Your task to perform on an android device: Open Google Chrome and click the shortcut for Amazon.com Image 0: 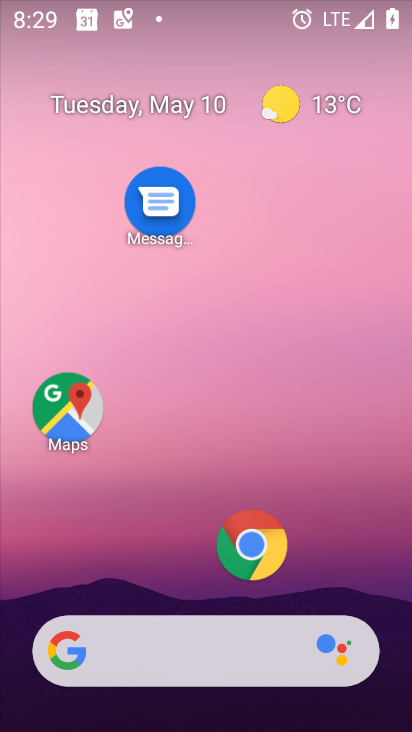
Step 0: press home button
Your task to perform on an android device: Open Google Chrome and click the shortcut for Amazon.com Image 1: 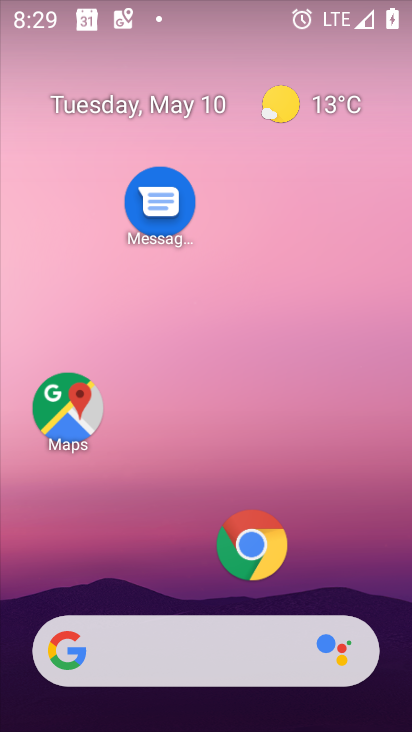
Step 1: click (250, 535)
Your task to perform on an android device: Open Google Chrome and click the shortcut for Amazon.com Image 2: 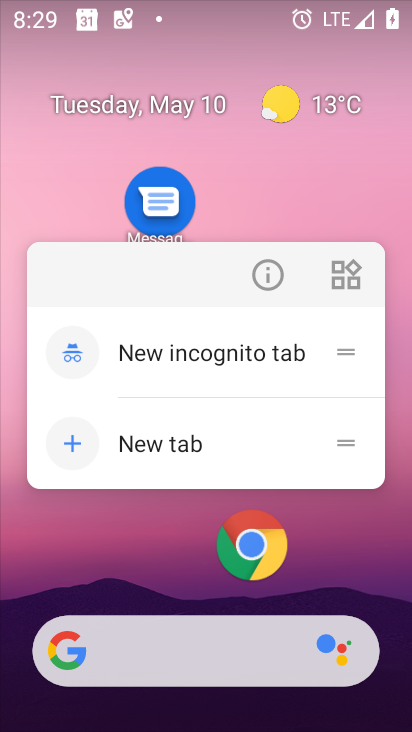
Step 2: click (250, 536)
Your task to perform on an android device: Open Google Chrome and click the shortcut for Amazon.com Image 3: 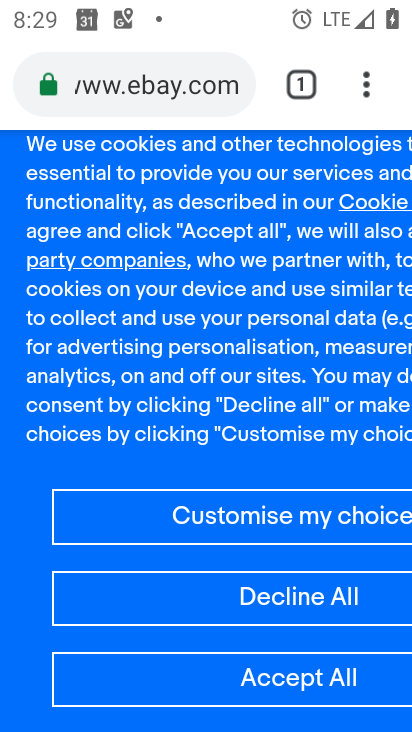
Step 3: click (294, 86)
Your task to perform on an android device: Open Google Chrome and click the shortcut for Amazon.com Image 4: 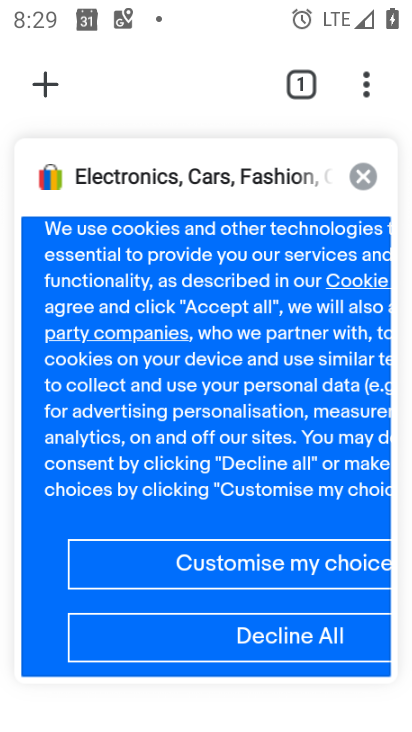
Step 4: click (361, 175)
Your task to perform on an android device: Open Google Chrome and click the shortcut for Amazon.com Image 5: 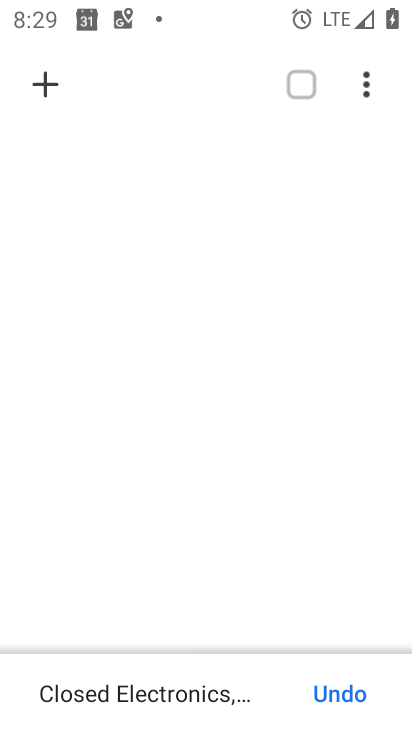
Step 5: click (49, 90)
Your task to perform on an android device: Open Google Chrome and click the shortcut for Amazon.com Image 6: 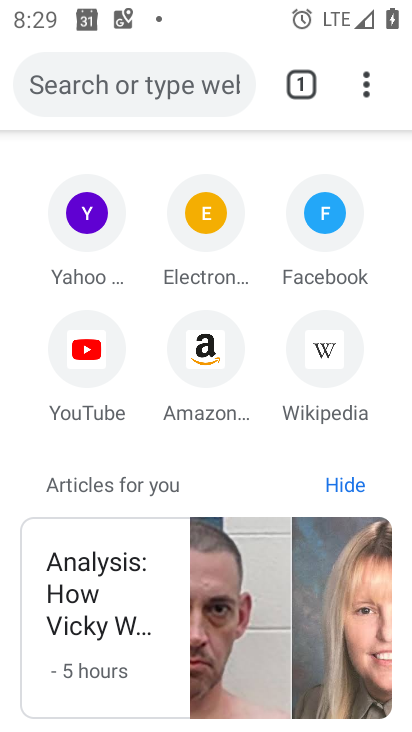
Step 6: click (201, 344)
Your task to perform on an android device: Open Google Chrome and click the shortcut for Amazon.com Image 7: 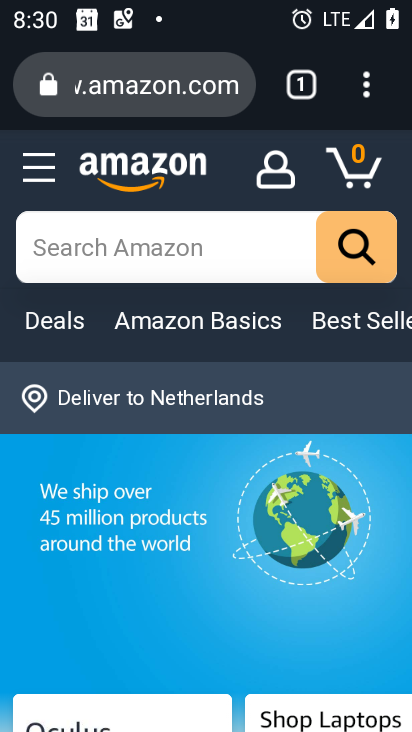
Step 7: task complete